Your task to perform on an android device: Play the last video I watched on Youtube Image 0: 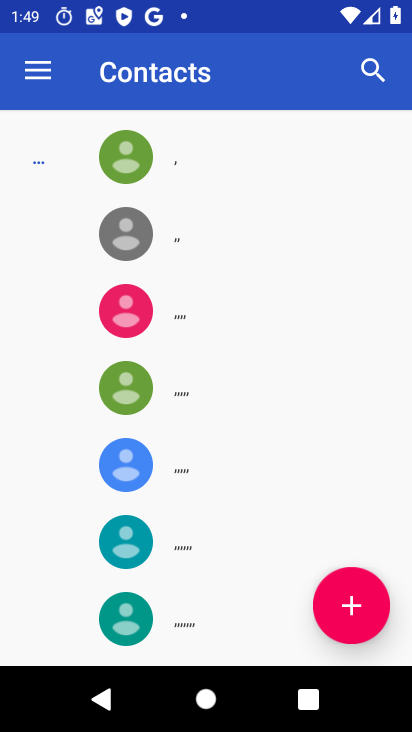
Step 0: press home button
Your task to perform on an android device: Play the last video I watched on Youtube Image 1: 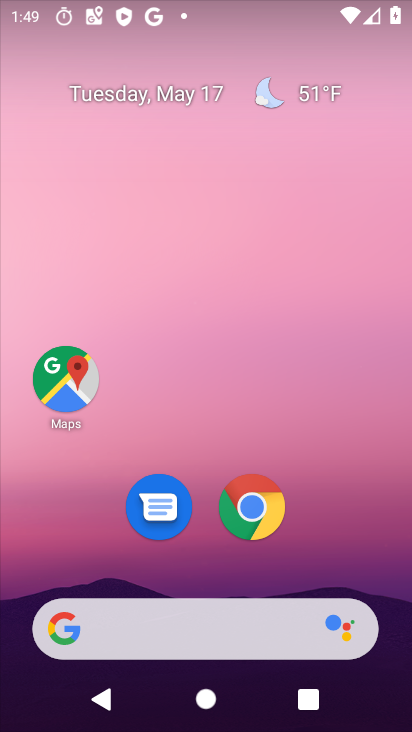
Step 1: drag from (201, 535) to (221, 130)
Your task to perform on an android device: Play the last video I watched on Youtube Image 2: 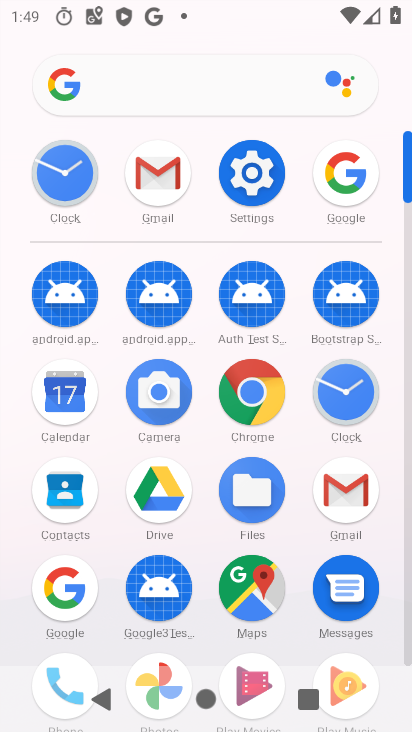
Step 2: drag from (206, 557) to (210, 228)
Your task to perform on an android device: Play the last video I watched on Youtube Image 3: 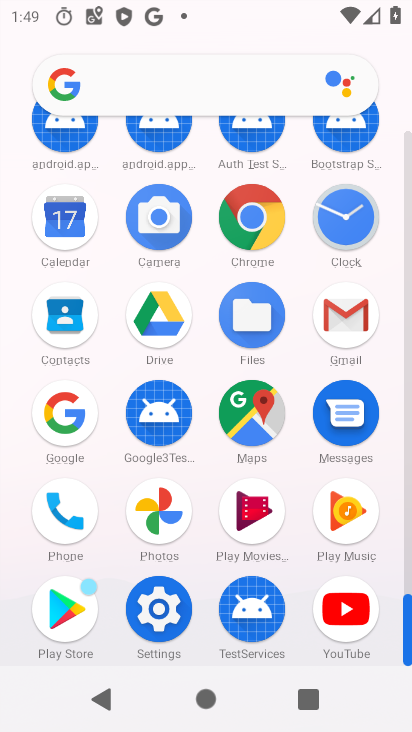
Step 3: click (350, 606)
Your task to perform on an android device: Play the last video I watched on Youtube Image 4: 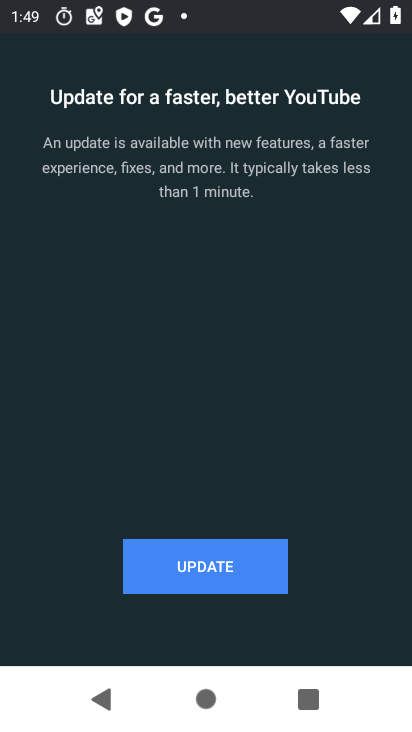
Step 4: click (207, 563)
Your task to perform on an android device: Play the last video I watched on Youtube Image 5: 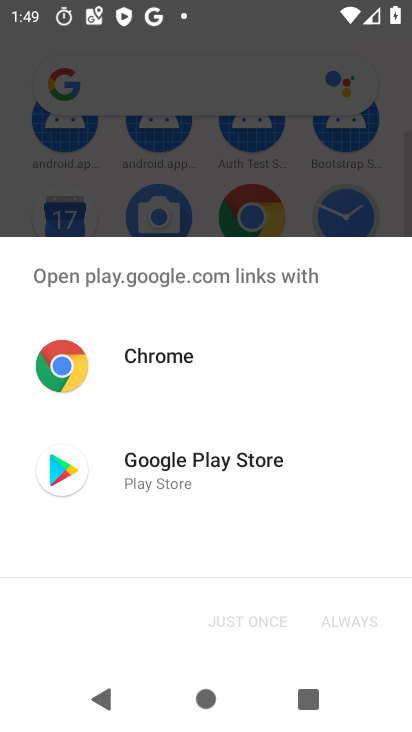
Step 5: click (161, 481)
Your task to perform on an android device: Play the last video I watched on Youtube Image 6: 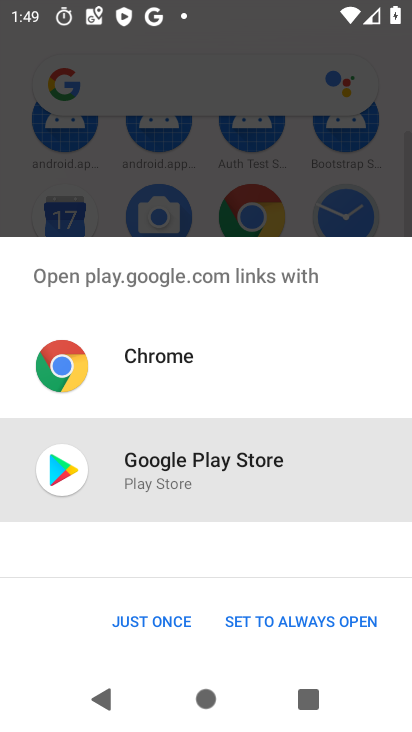
Step 6: click (165, 618)
Your task to perform on an android device: Play the last video I watched on Youtube Image 7: 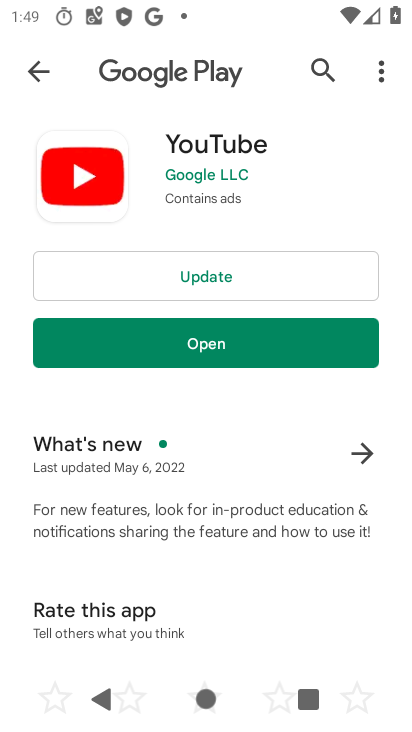
Step 7: click (188, 255)
Your task to perform on an android device: Play the last video I watched on Youtube Image 8: 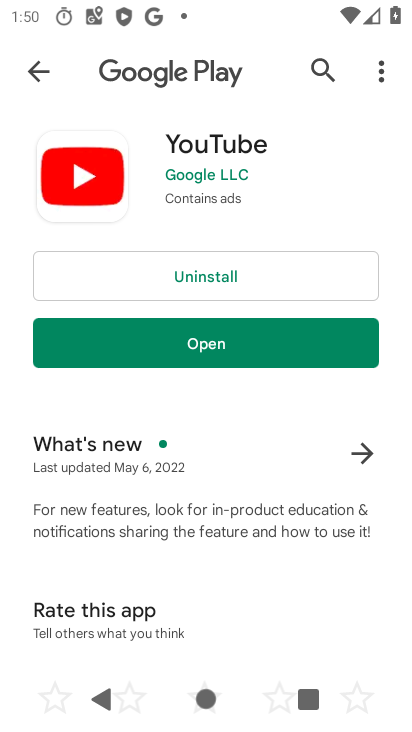
Step 8: click (216, 334)
Your task to perform on an android device: Play the last video I watched on Youtube Image 9: 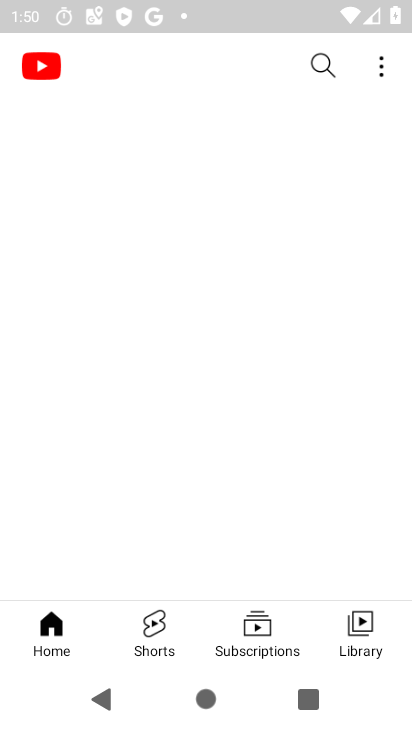
Step 9: click (318, 66)
Your task to perform on an android device: Play the last video I watched on Youtube Image 10: 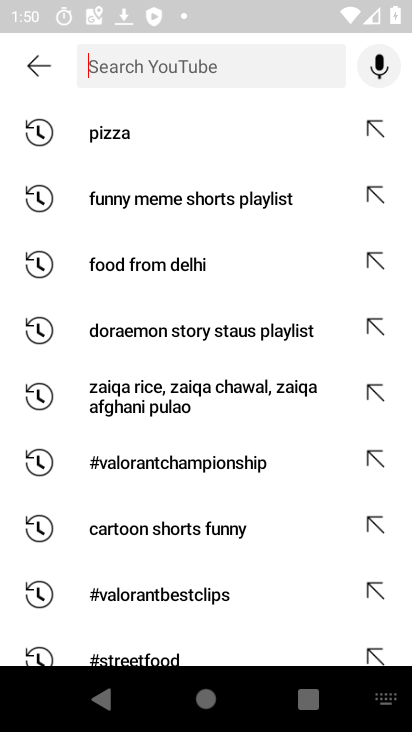
Step 10: click (155, 129)
Your task to perform on an android device: Play the last video I watched on Youtube Image 11: 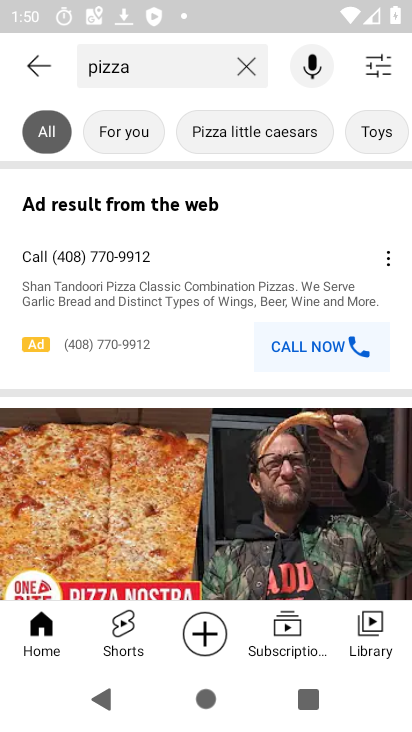
Step 11: drag from (266, 504) to (262, 314)
Your task to perform on an android device: Play the last video I watched on Youtube Image 12: 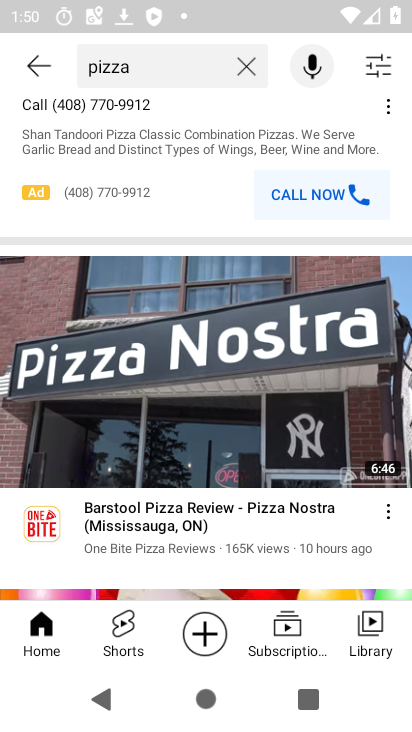
Step 12: click (234, 399)
Your task to perform on an android device: Play the last video I watched on Youtube Image 13: 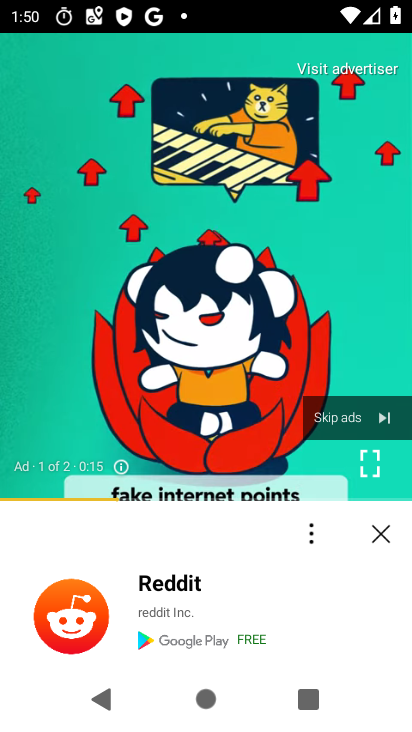
Step 13: click (359, 412)
Your task to perform on an android device: Play the last video I watched on Youtube Image 14: 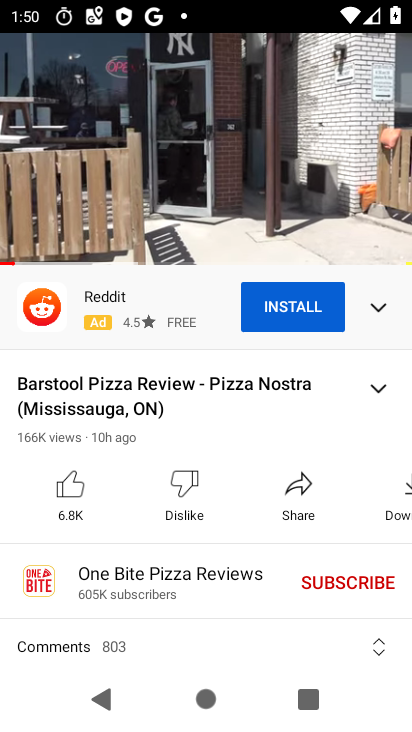
Step 14: task complete